Your task to perform on an android device: Do I have any events this weekend? Image 0: 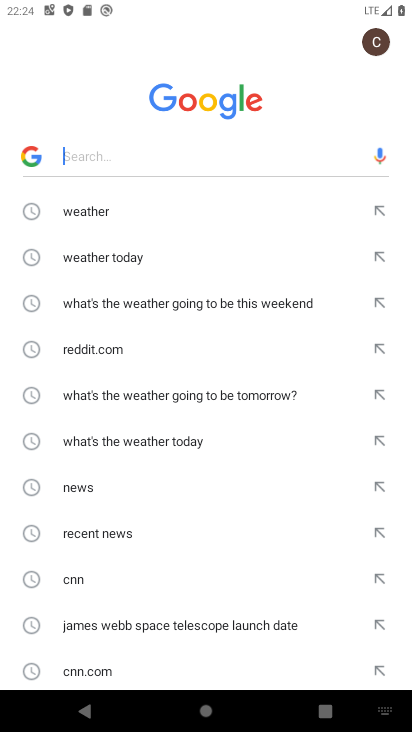
Step 0: press back button
Your task to perform on an android device: Do I have any events this weekend? Image 1: 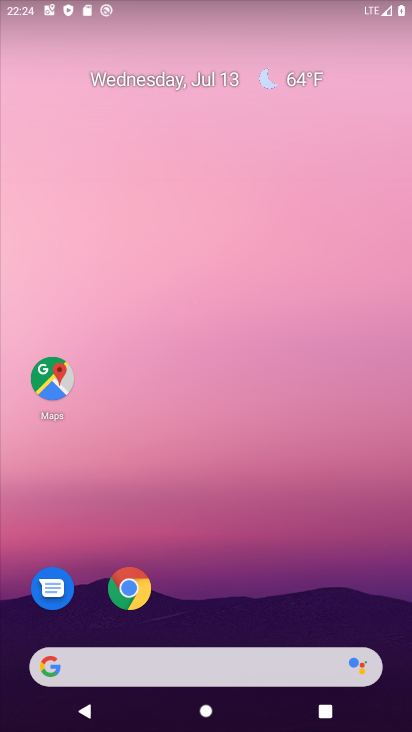
Step 1: drag from (200, 606) to (308, 36)
Your task to perform on an android device: Do I have any events this weekend? Image 2: 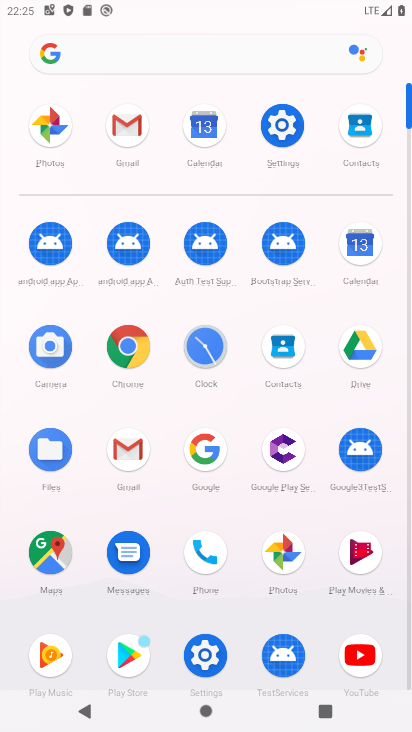
Step 2: click (364, 241)
Your task to perform on an android device: Do I have any events this weekend? Image 3: 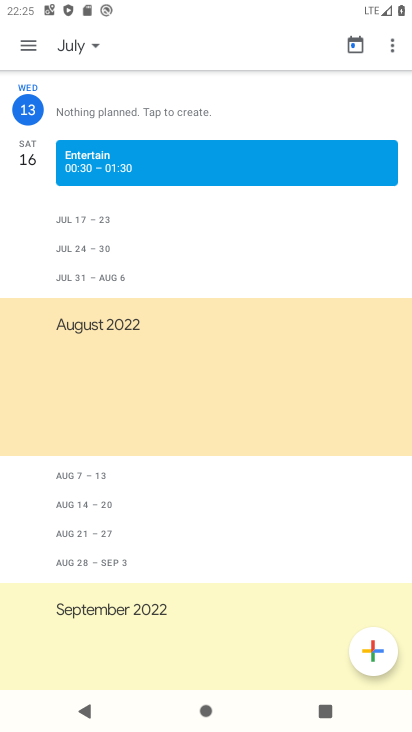
Step 3: task complete